Your task to perform on an android device: turn off airplane mode Image 0: 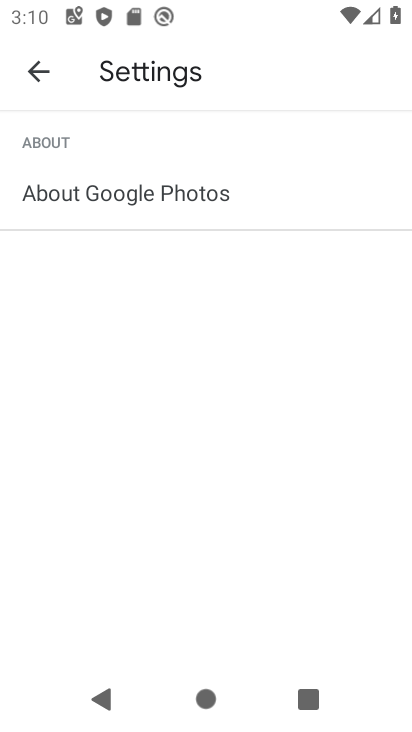
Step 0: press back button
Your task to perform on an android device: turn off airplane mode Image 1: 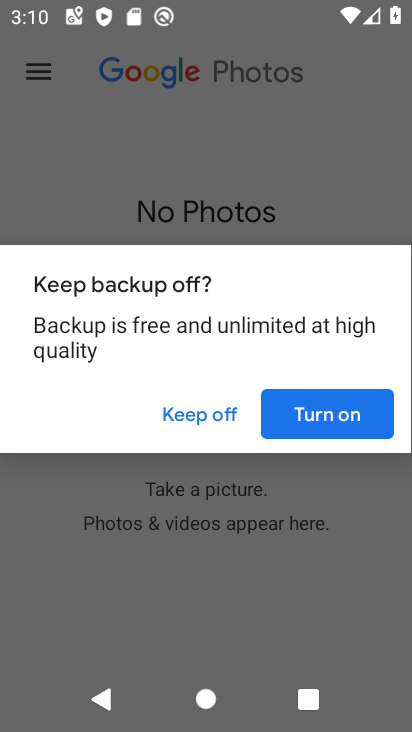
Step 1: task complete